Your task to perform on an android device: turn smart compose on in the gmail app Image 0: 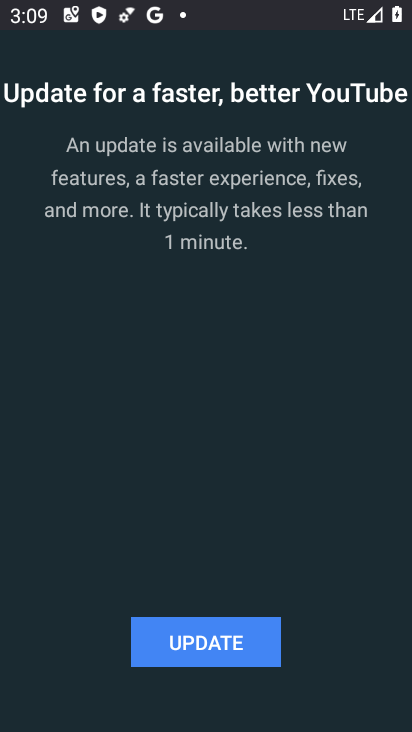
Step 0: press home button
Your task to perform on an android device: turn smart compose on in the gmail app Image 1: 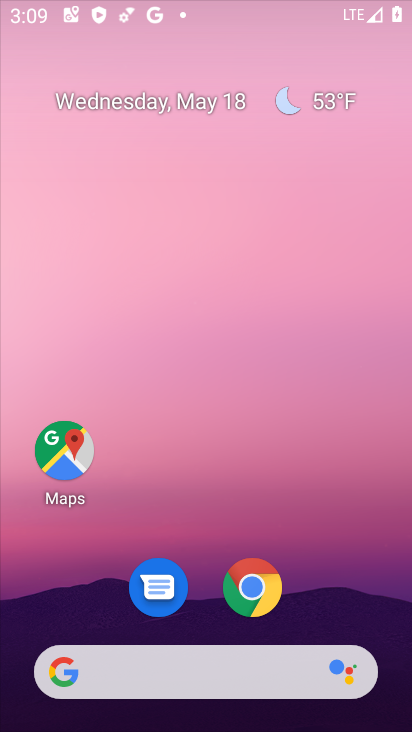
Step 1: drag from (232, 617) to (255, 187)
Your task to perform on an android device: turn smart compose on in the gmail app Image 2: 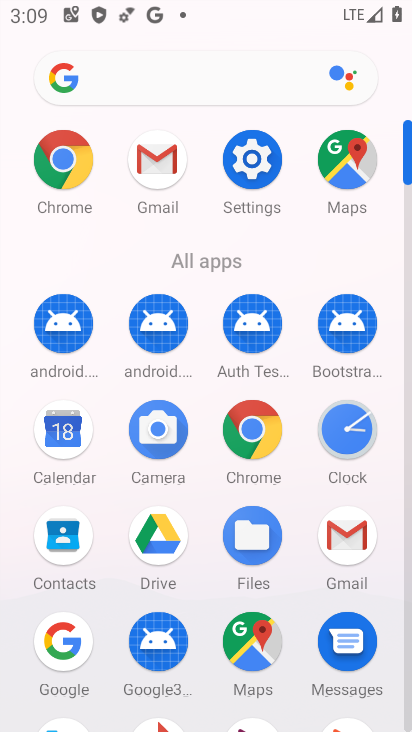
Step 2: click (341, 551)
Your task to perform on an android device: turn smart compose on in the gmail app Image 3: 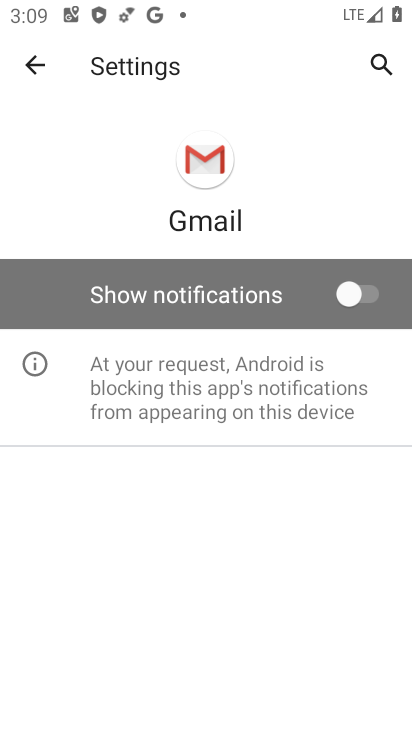
Step 3: click (29, 71)
Your task to perform on an android device: turn smart compose on in the gmail app Image 4: 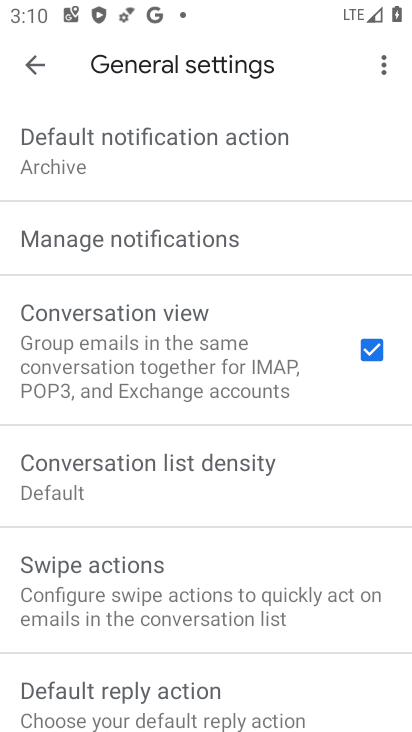
Step 4: click (36, 78)
Your task to perform on an android device: turn smart compose on in the gmail app Image 5: 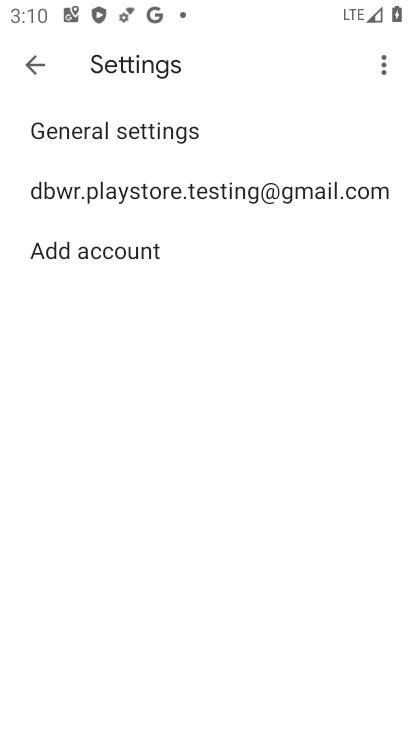
Step 5: click (212, 201)
Your task to perform on an android device: turn smart compose on in the gmail app Image 6: 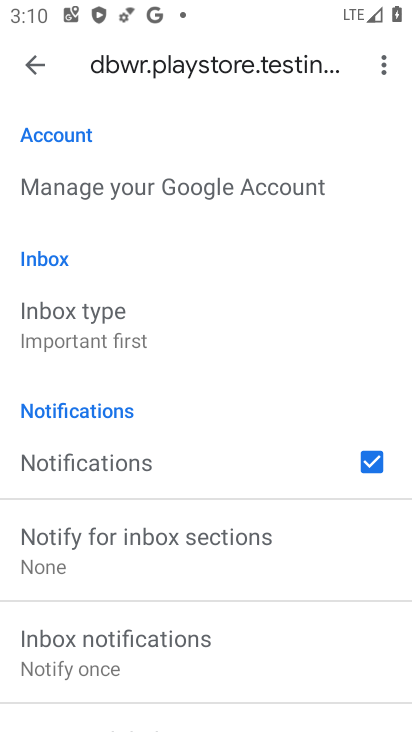
Step 6: task complete